Your task to perform on an android device: create a new album in the google photos Image 0: 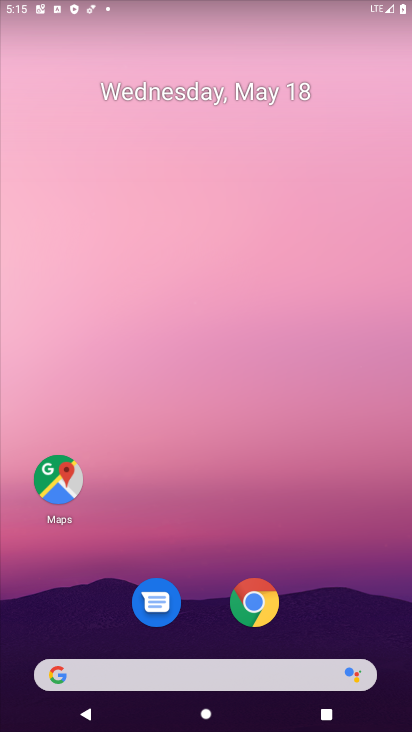
Step 0: drag from (301, 678) to (260, 74)
Your task to perform on an android device: create a new album in the google photos Image 1: 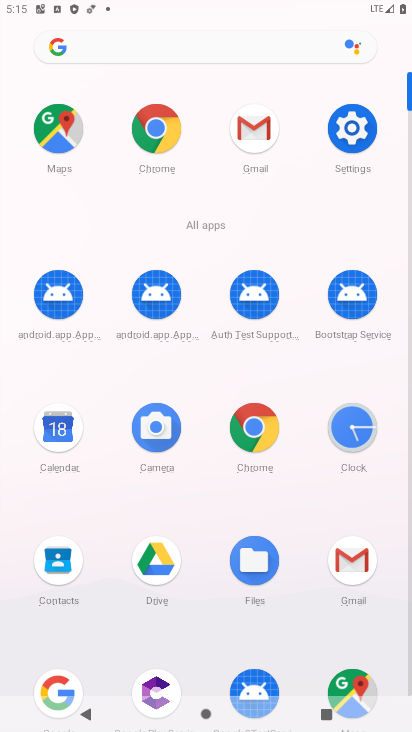
Step 1: drag from (311, 587) to (310, 273)
Your task to perform on an android device: create a new album in the google photos Image 2: 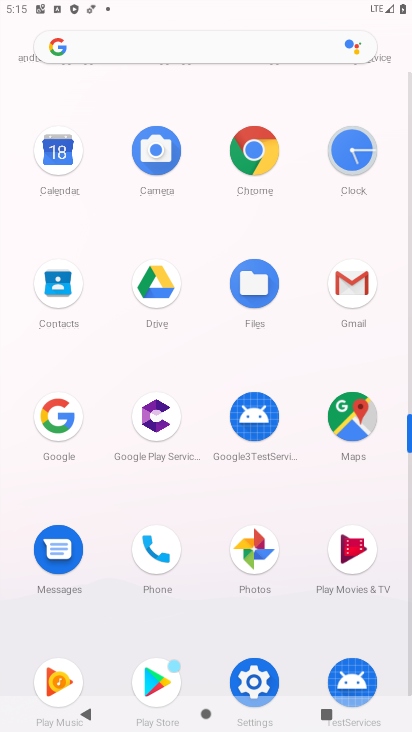
Step 2: click (247, 554)
Your task to perform on an android device: create a new album in the google photos Image 3: 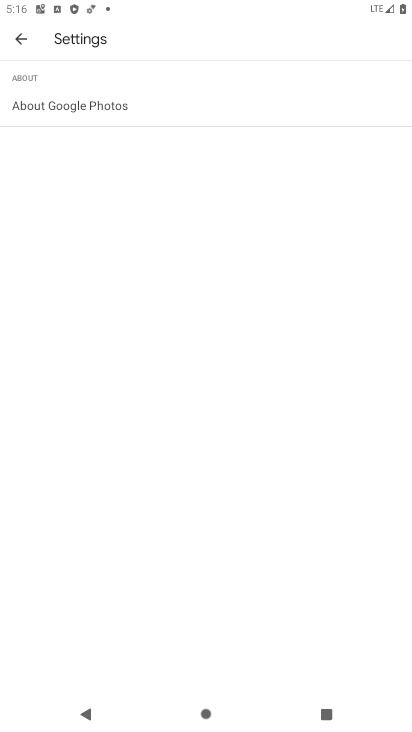
Step 3: press back button
Your task to perform on an android device: create a new album in the google photos Image 4: 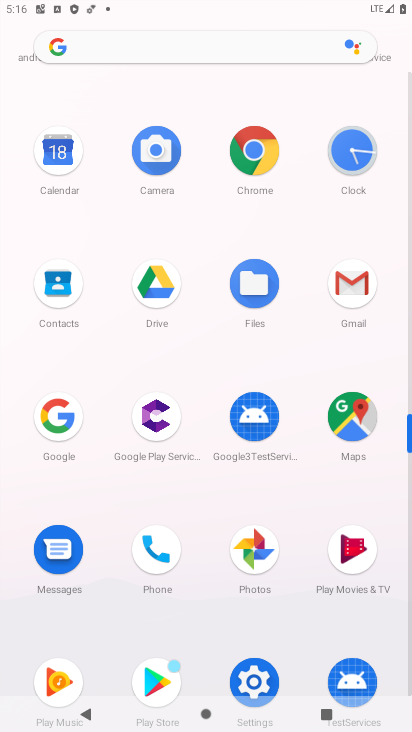
Step 4: click (267, 550)
Your task to perform on an android device: create a new album in the google photos Image 5: 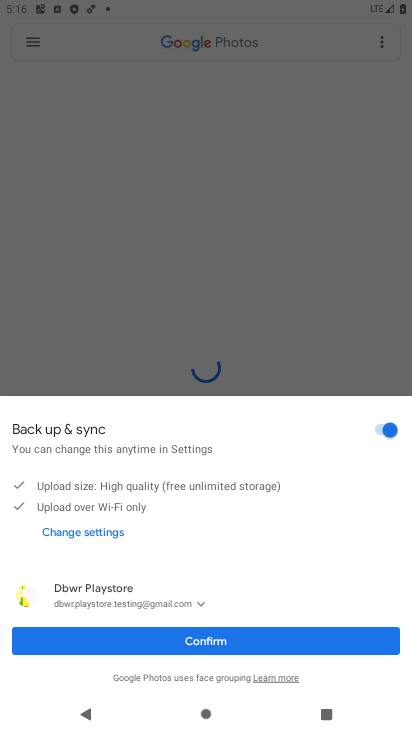
Step 5: click (262, 642)
Your task to perform on an android device: create a new album in the google photos Image 6: 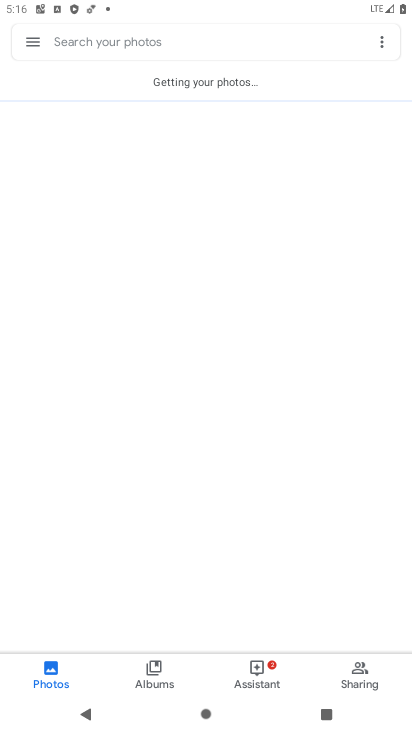
Step 6: click (163, 672)
Your task to perform on an android device: create a new album in the google photos Image 7: 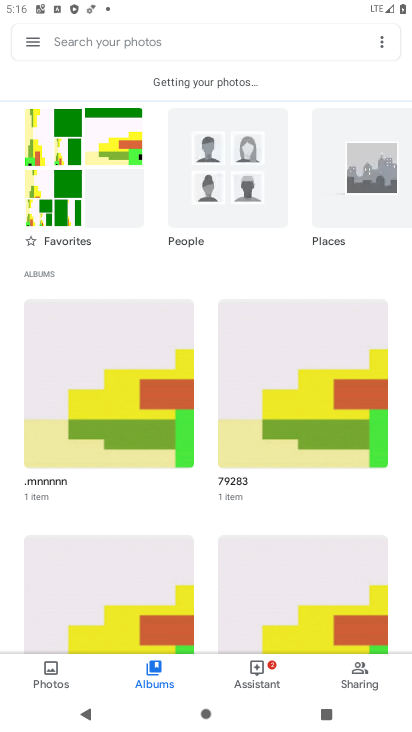
Step 7: drag from (276, 588) to (296, 104)
Your task to perform on an android device: create a new album in the google photos Image 8: 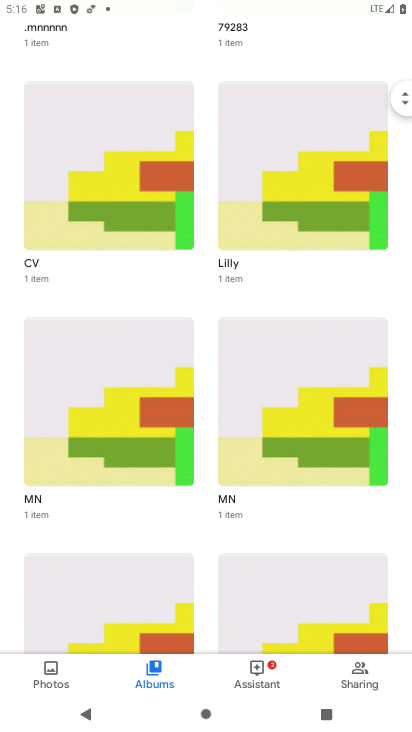
Step 8: drag from (270, 124) to (265, 676)
Your task to perform on an android device: create a new album in the google photos Image 9: 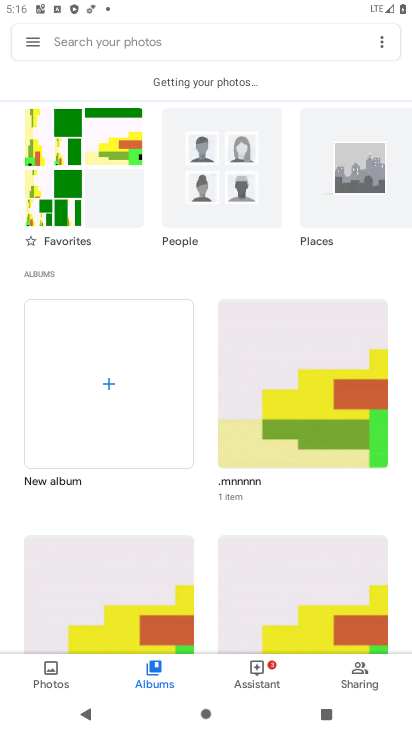
Step 9: click (148, 674)
Your task to perform on an android device: create a new album in the google photos Image 10: 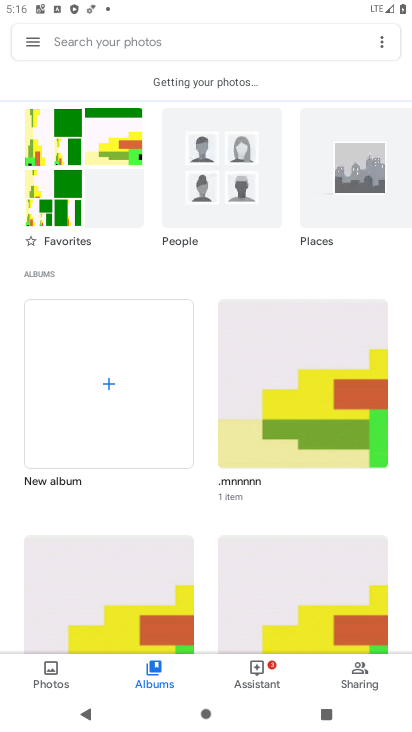
Step 10: click (106, 377)
Your task to perform on an android device: create a new album in the google photos Image 11: 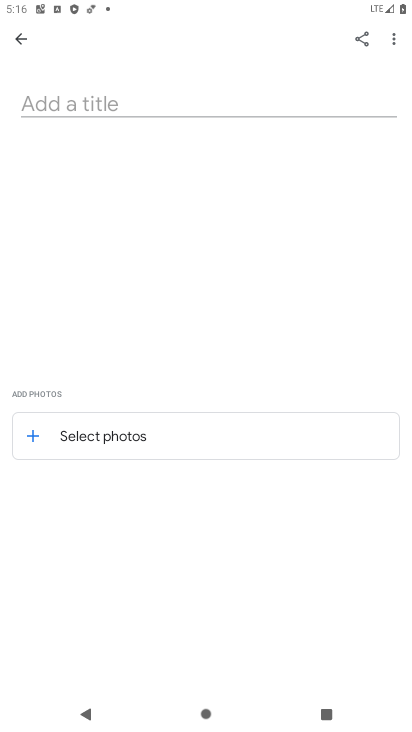
Step 11: click (151, 100)
Your task to perform on an android device: create a new album in the google photos Image 12: 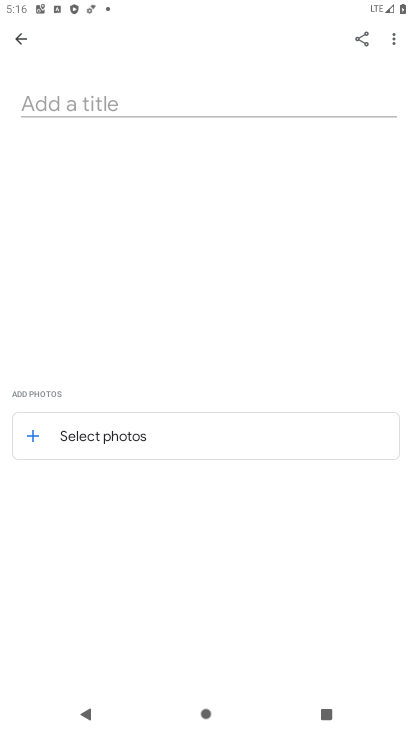
Step 12: click (151, 100)
Your task to perform on an android device: create a new album in the google photos Image 13: 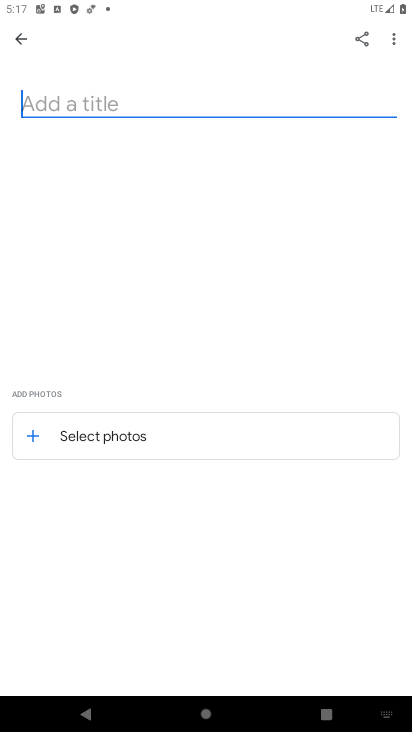
Step 13: type "jsjadkjk"
Your task to perform on an android device: create a new album in the google photos Image 14: 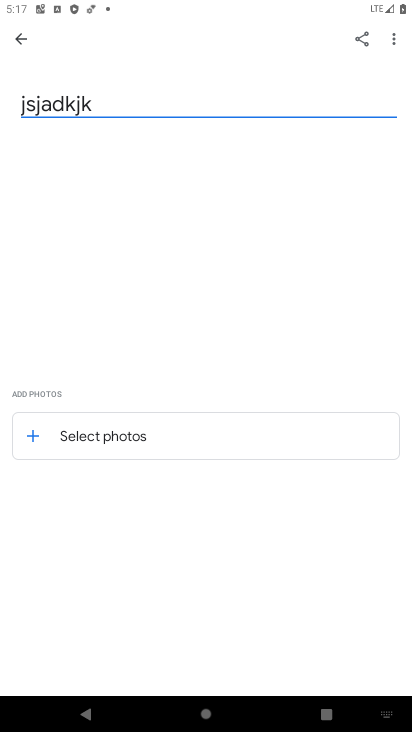
Step 14: click (33, 437)
Your task to perform on an android device: create a new album in the google photos Image 15: 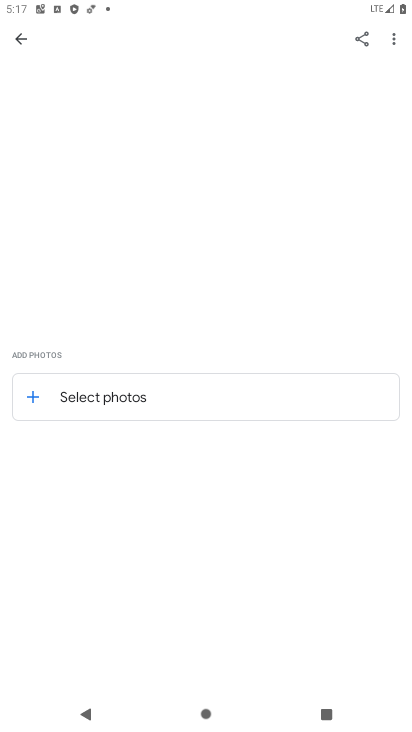
Step 15: click (33, 397)
Your task to perform on an android device: create a new album in the google photos Image 16: 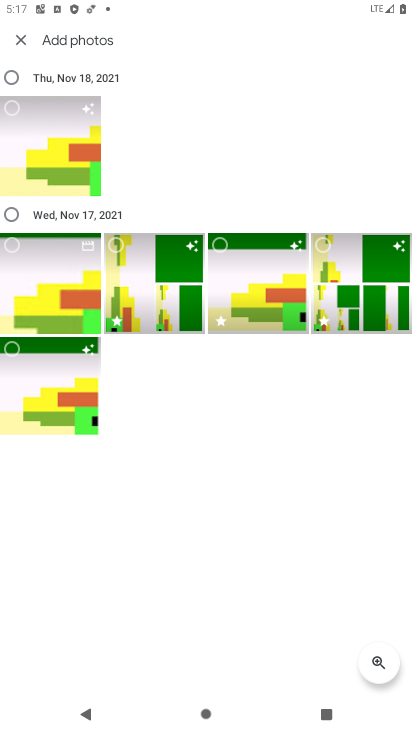
Step 16: click (55, 306)
Your task to perform on an android device: create a new album in the google photos Image 17: 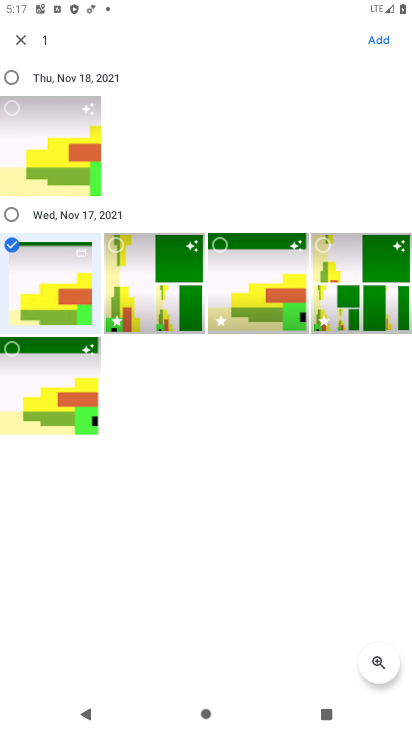
Step 17: click (370, 37)
Your task to perform on an android device: create a new album in the google photos Image 18: 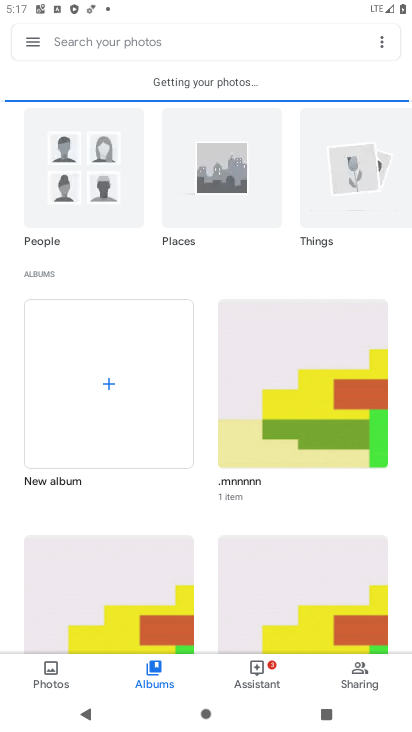
Step 18: task complete